Your task to perform on an android device: turn off notifications in google photos Image 0: 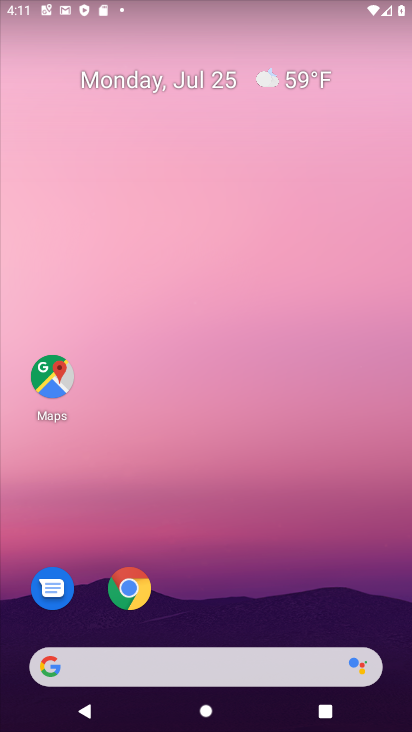
Step 0: drag from (236, 411) to (247, 40)
Your task to perform on an android device: turn off notifications in google photos Image 1: 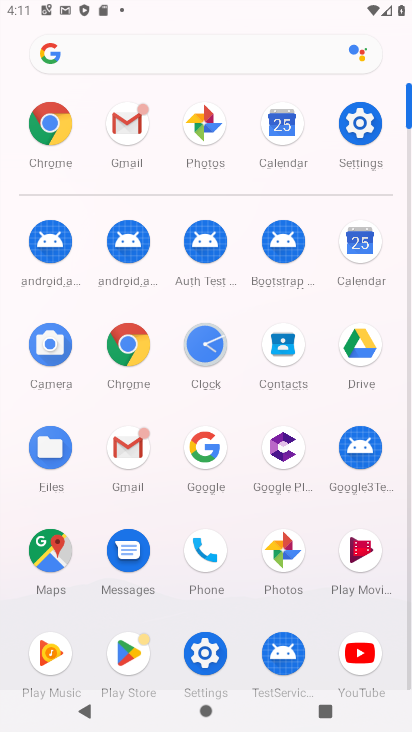
Step 1: click (204, 107)
Your task to perform on an android device: turn off notifications in google photos Image 2: 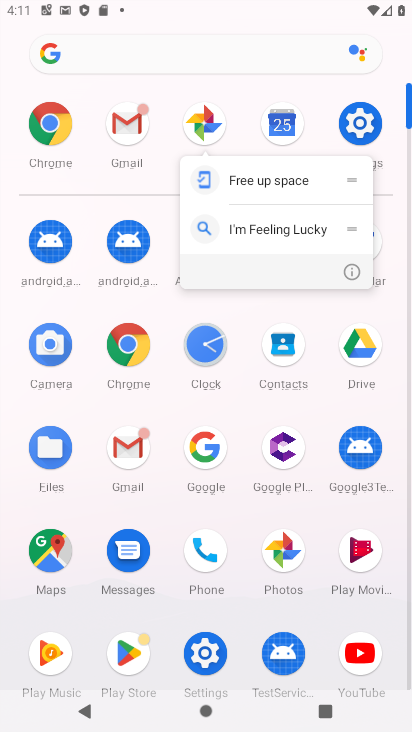
Step 2: click (349, 270)
Your task to perform on an android device: turn off notifications in google photos Image 3: 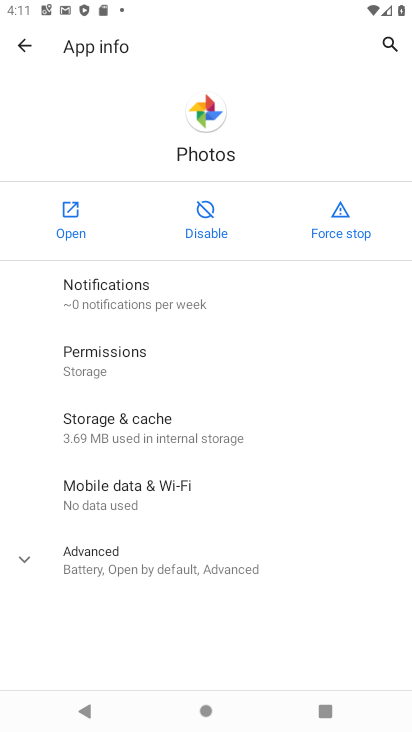
Step 3: click (92, 295)
Your task to perform on an android device: turn off notifications in google photos Image 4: 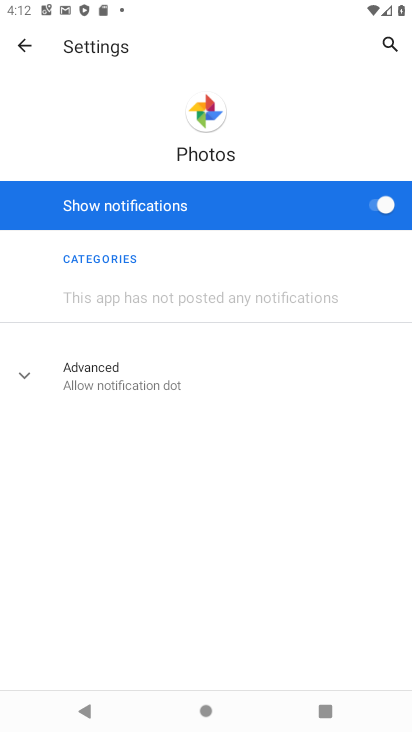
Step 4: click (291, 219)
Your task to perform on an android device: turn off notifications in google photos Image 5: 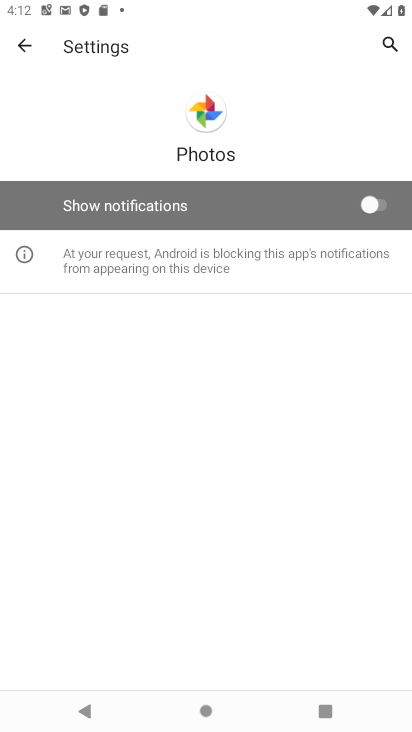
Step 5: task complete